Your task to perform on an android device: manage bookmarks in the chrome app Image 0: 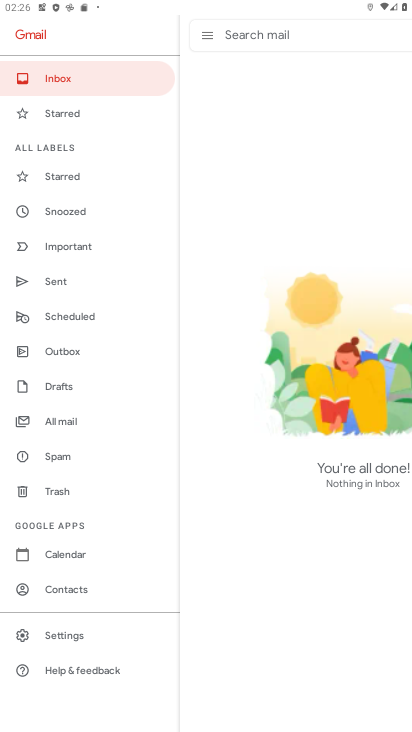
Step 0: press home button
Your task to perform on an android device: manage bookmarks in the chrome app Image 1: 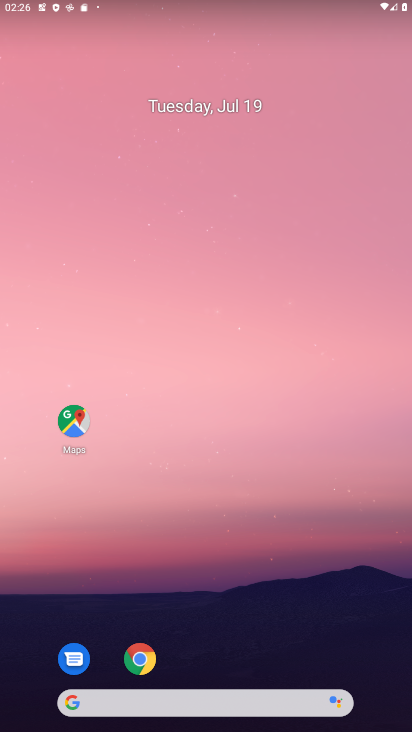
Step 1: drag from (268, 636) to (288, 250)
Your task to perform on an android device: manage bookmarks in the chrome app Image 2: 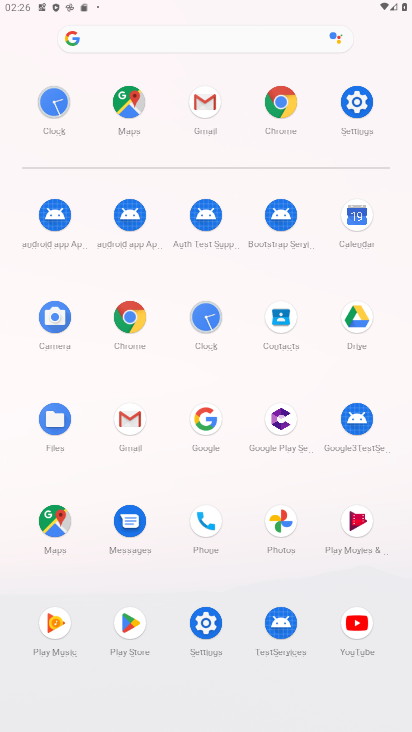
Step 2: click (119, 336)
Your task to perform on an android device: manage bookmarks in the chrome app Image 3: 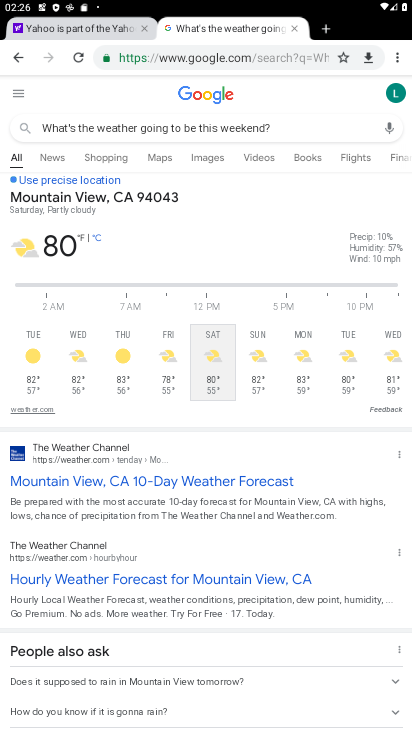
Step 3: drag from (404, 56) to (295, 157)
Your task to perform on an android device: manage bookmarks in the chrome app Image 4: 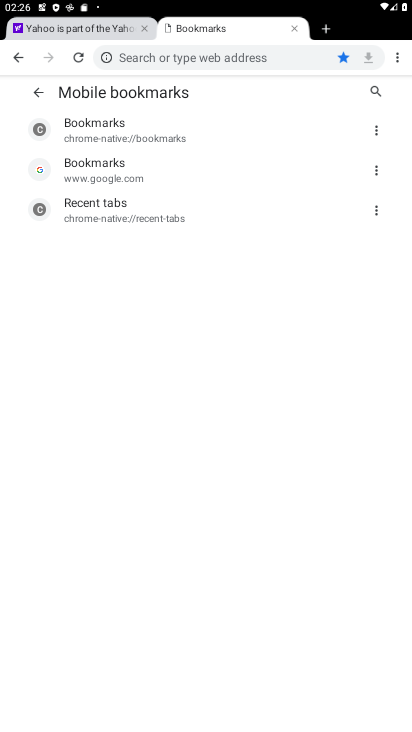
Step 4: click (378, 212)
Your task to perform on an android device: manage bookmarks in the chrome app Image 5: 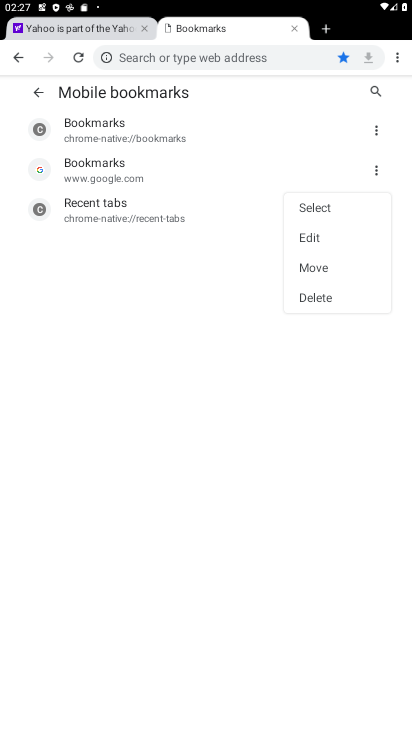
Step 5: click (330, 298)
Your task to perform on an android device: manage bookmarks in the chrome app Image 6: 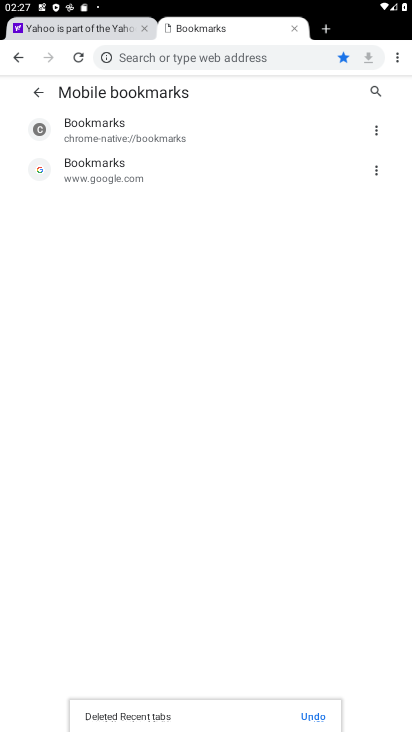
Step 6: task complete